Your task to perform on an android device: check google app version Image 0: 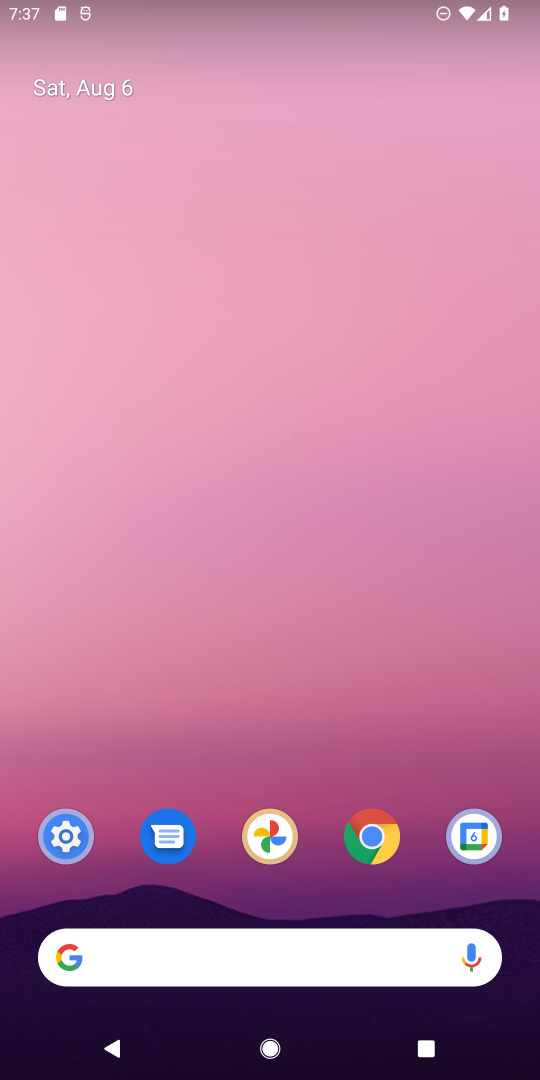
Step 0: drag from (362, 469) to (364, 198)
Your task to perform on an android device: check google app version Image 1: 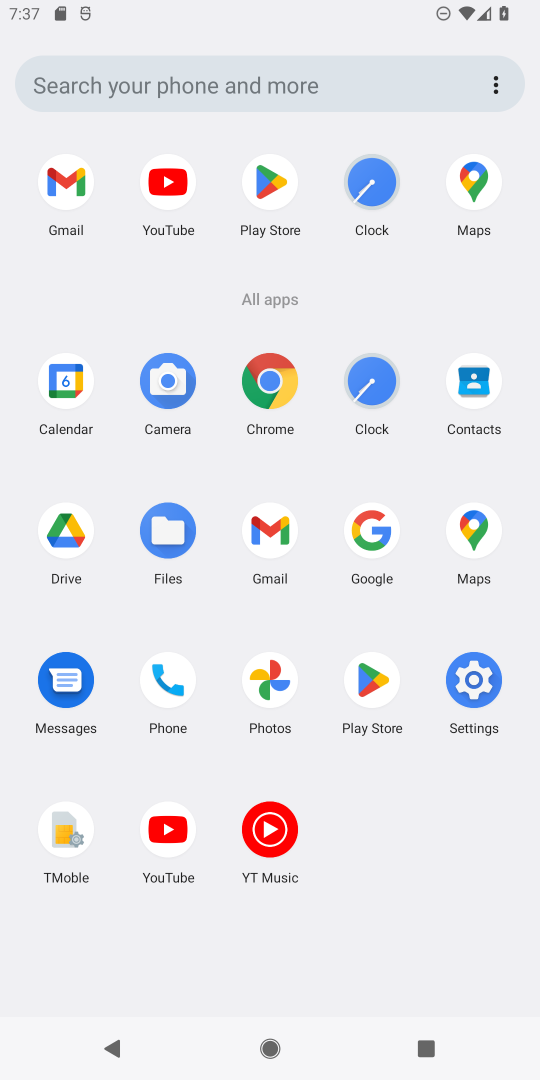
Step 1: click (361, 534)
Your task to perform on an android device: check google app version Image 2: 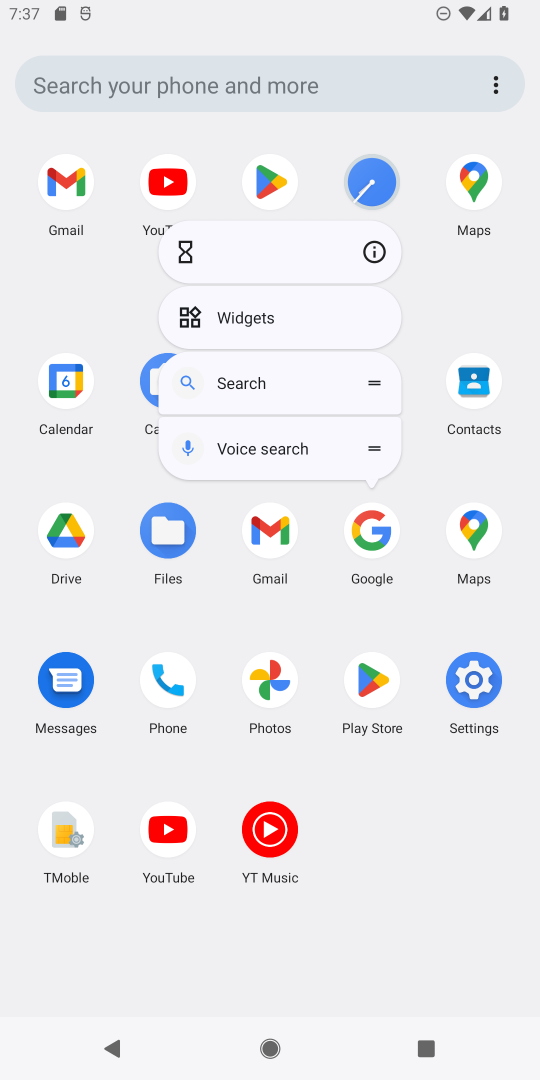
Step 2: click (372, 250)
Your task to perform on an android device: check google app version Image 3: 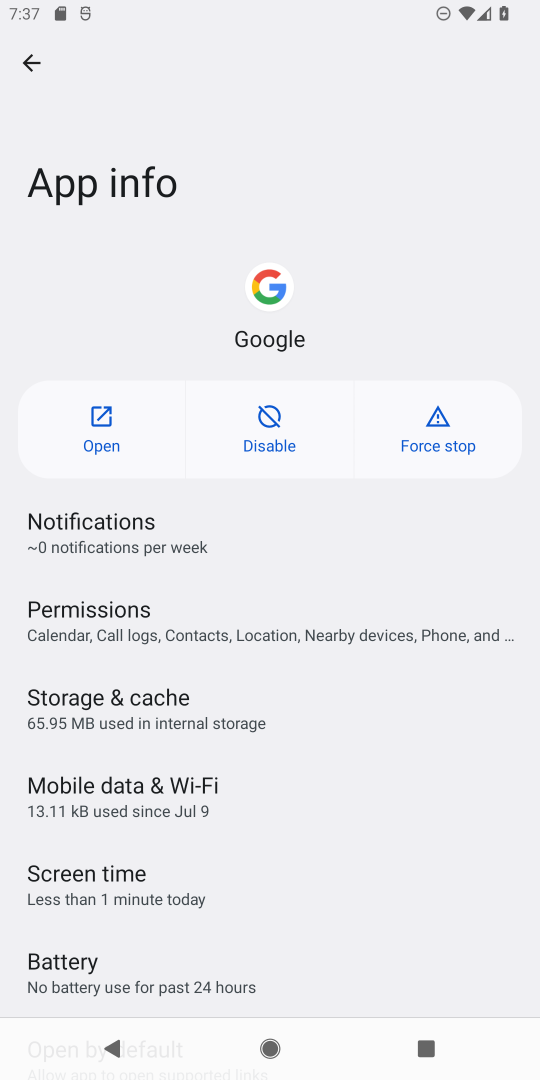
Step 3: task complete